Your task to perform on an android device: Search for Mexican restaurants on Maps Image 0: 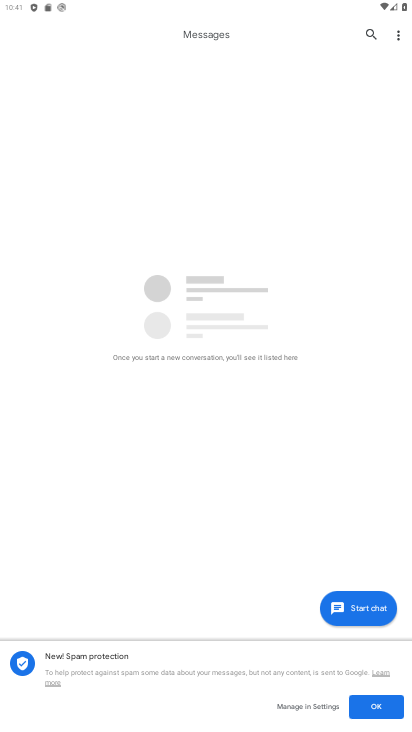
Step 0: press home button
Your task to perform on an android device: Search for Mexican restaurants on Maps Image 1: 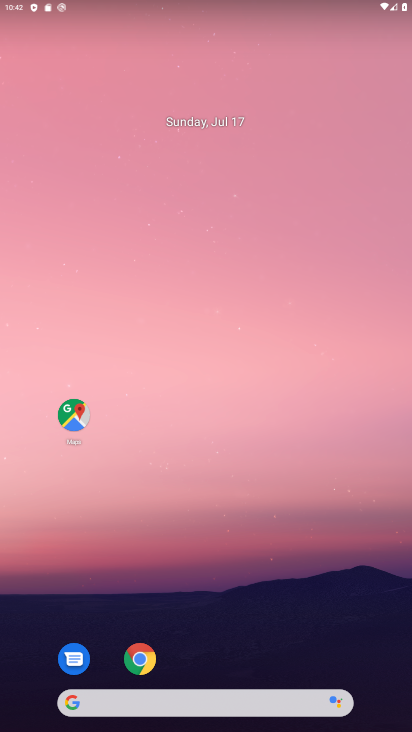
Step 1: drag from (256, 585) to (207, 204)
Your task to perform on an android device: Search for Mexican restaurants on Maps Image 2: 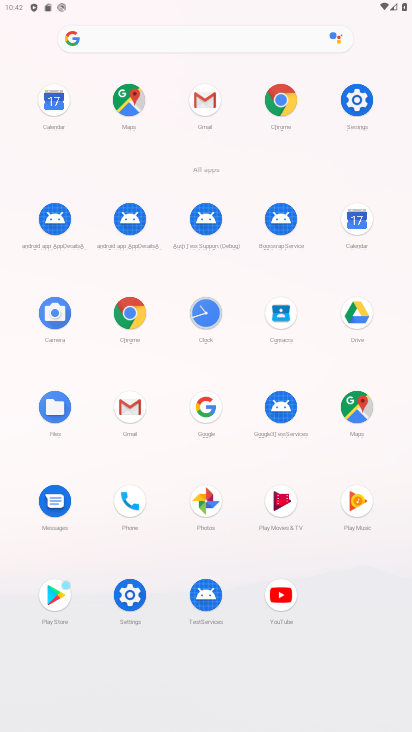
Step 2: click (360, 398)
Your task to perform on an android device: Search for Mexican restaurants on Maps Image 3: 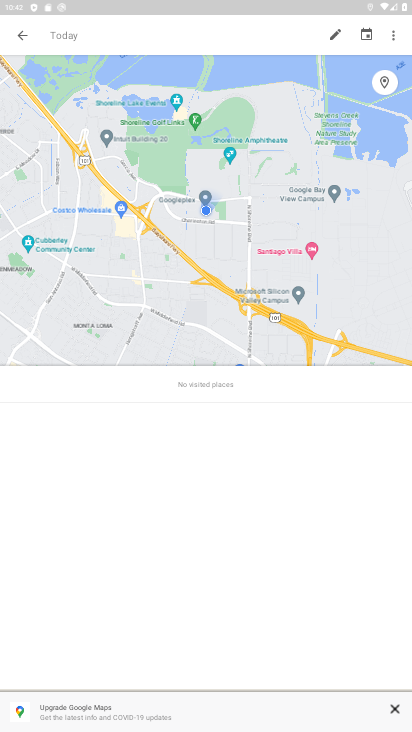
Step 3: click (22, 29)
Your task to perform on an android device: Search for Mexican restaurants on Maps Image 4: 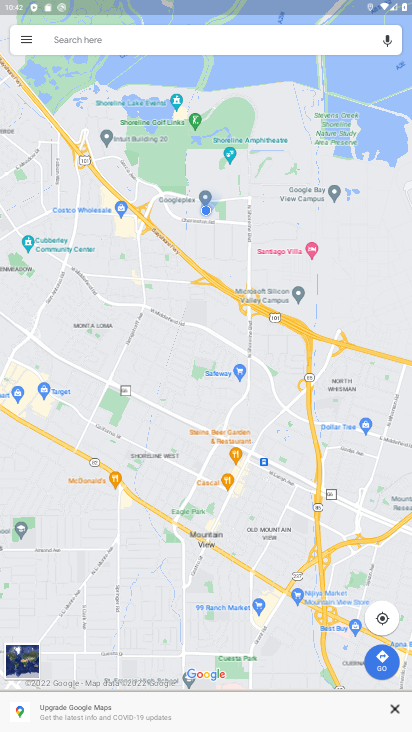
Step 4: click (74, 45)
Your task to perform on an android device: Search for Mexican restaurants on Maps Image 5: 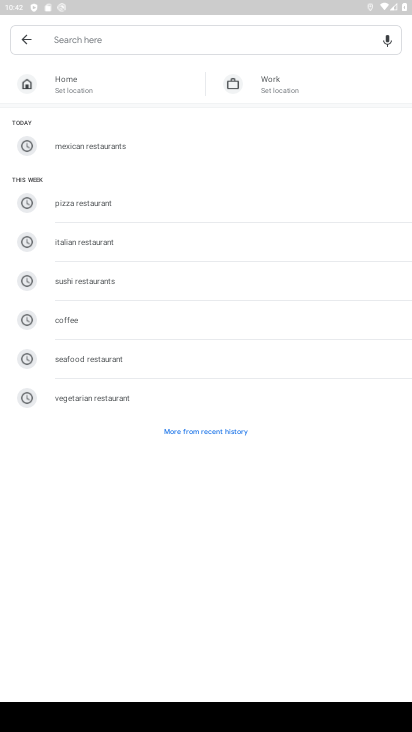
Step 5: click (117, 147)
Your task to perform on an android device: Search for Mexican restaurants on Maps Image 6: 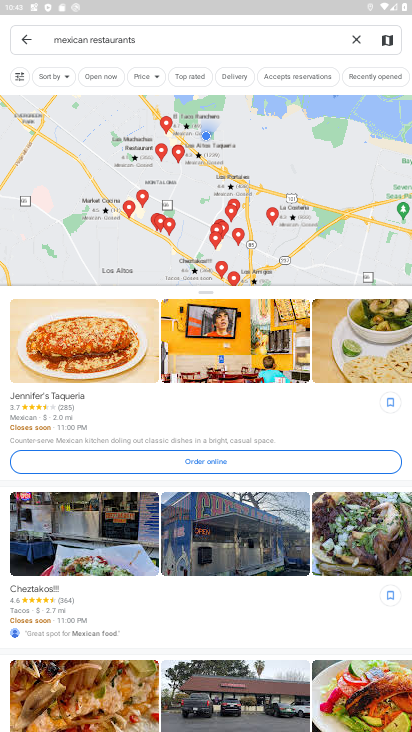
Step 6: task complete